Your task to perform on an android device: delete the emails in spam in the gmail app Image 0: 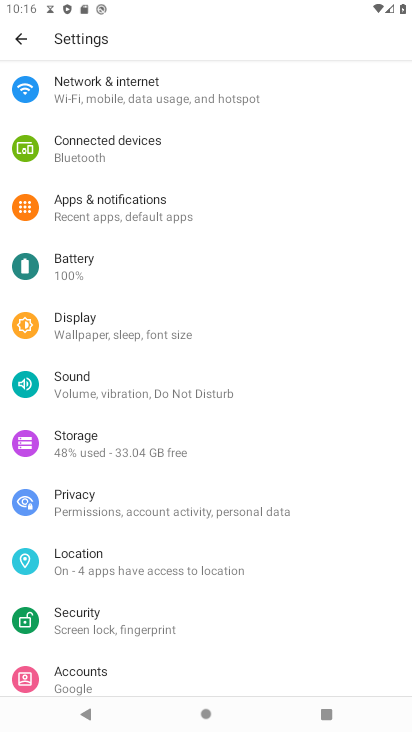
Step 0: press home button
Your task to perform on an android device: delete the emails in spam in the gmail app Image 1: 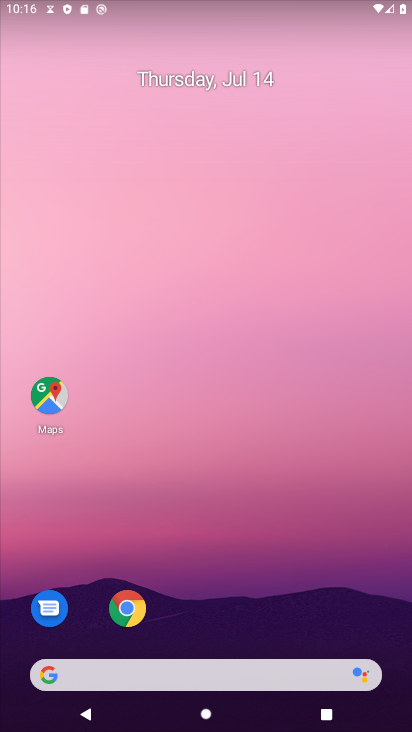
Step 1: drag from (167, 685) to (157, 96)
Your task to perform on an android device: delete the emails in spam in the gmail app Image 2: 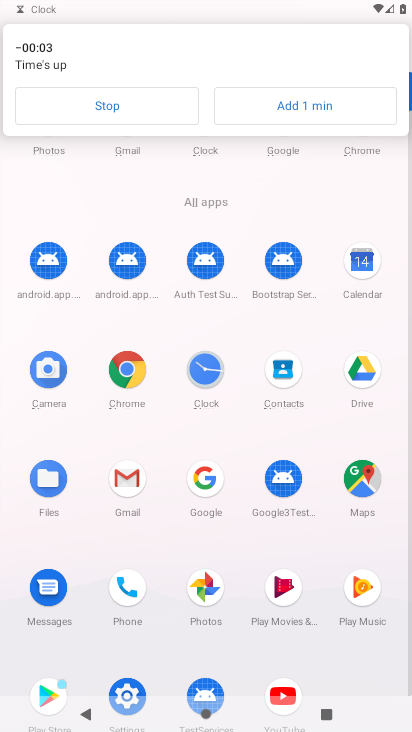
Step 2: click (126, 475)
Your task to perform on an android device: delete the emails in spam in the gmail app Image 3: 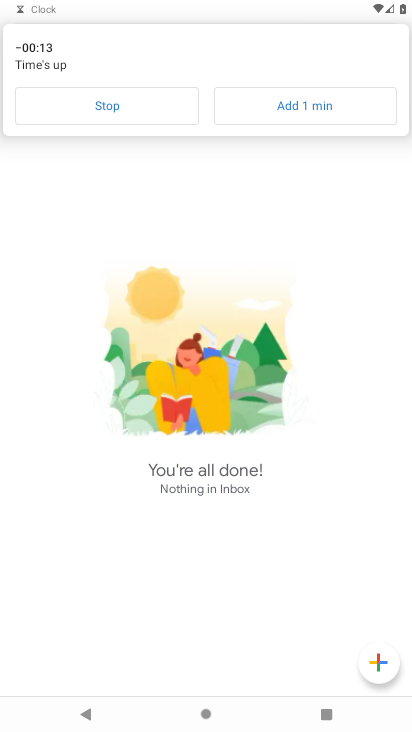
Step 3: click (109, 107)
Your task to perform on an android device: delete the emails in spam in the gmail app Image 4: 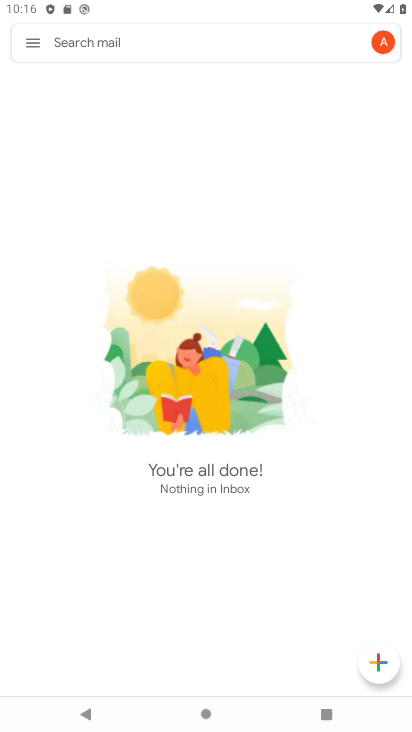
Step 4: click (32, 43)
Your task to perform on an android device: delete the emails in spam in the gmail app Image 5: 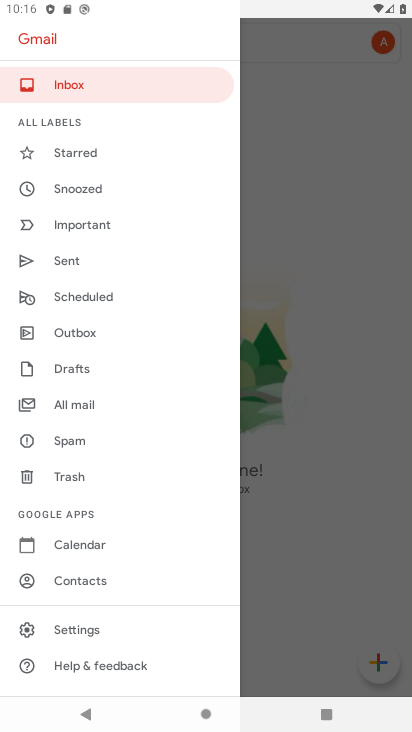
Step 5: click (68, 439)
Your task to perform on an android device: delete the emails in spam in the gmail app Image 6: 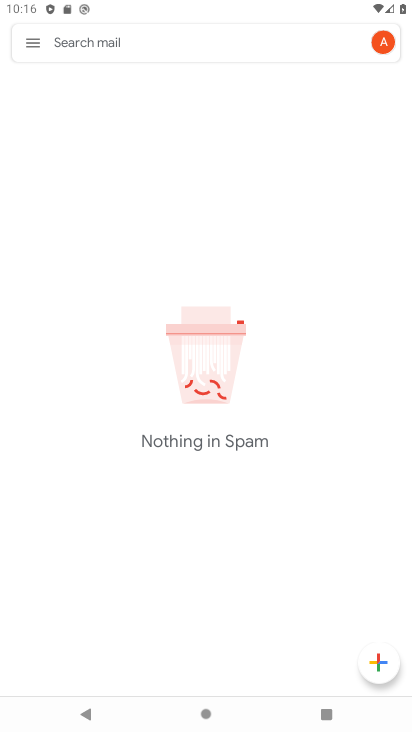
Step 6: task complete